Your task to perform on an android device: Go to network settings Image 0: 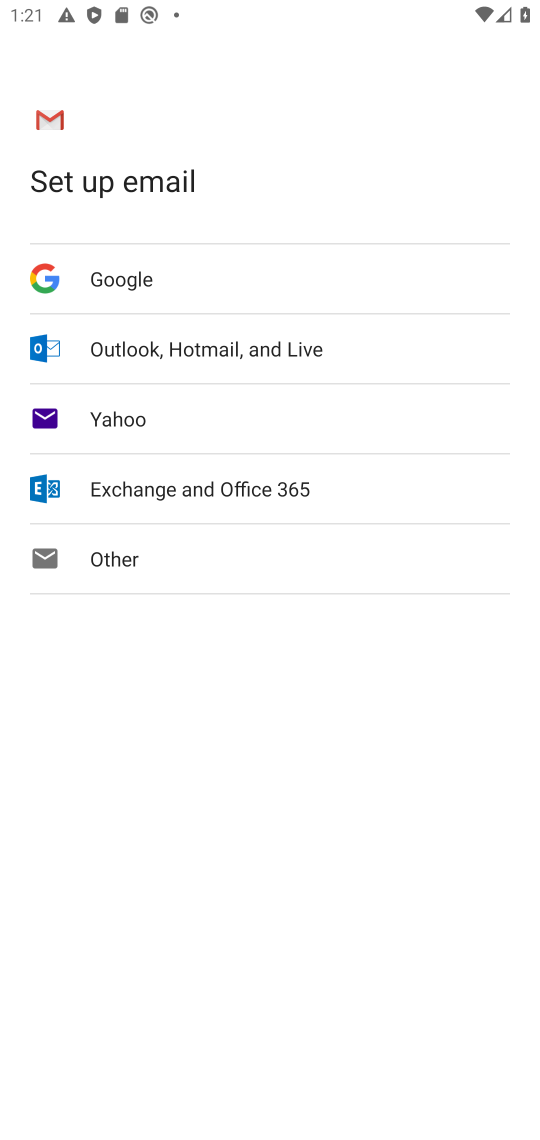
Step 0: press home button
Your task to perform on an android device: Go to network settings Image 1: 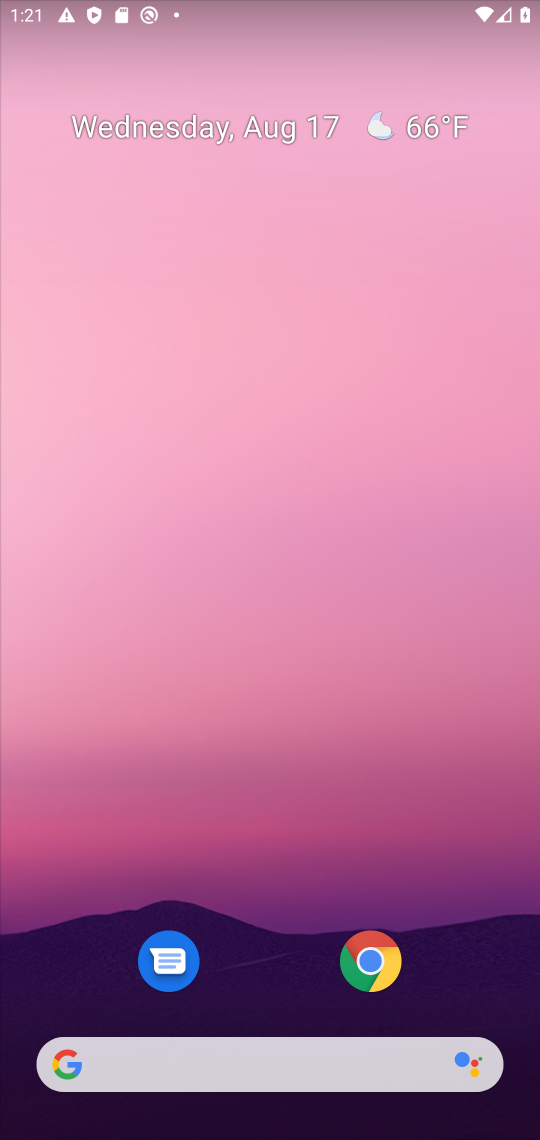
Step 1: drag from (244, 1011) to (169, 318)
Your task to perform on an android device: Go to network settings Image 2: 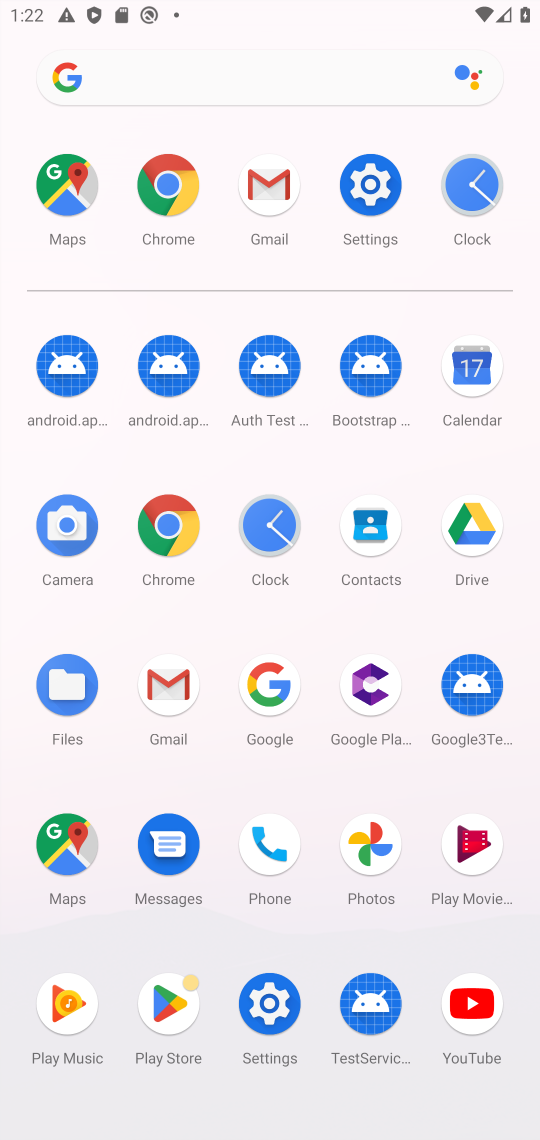
Step 2: click (384, 220)
Your task to perform on an android device: Go to network settings Image 3: 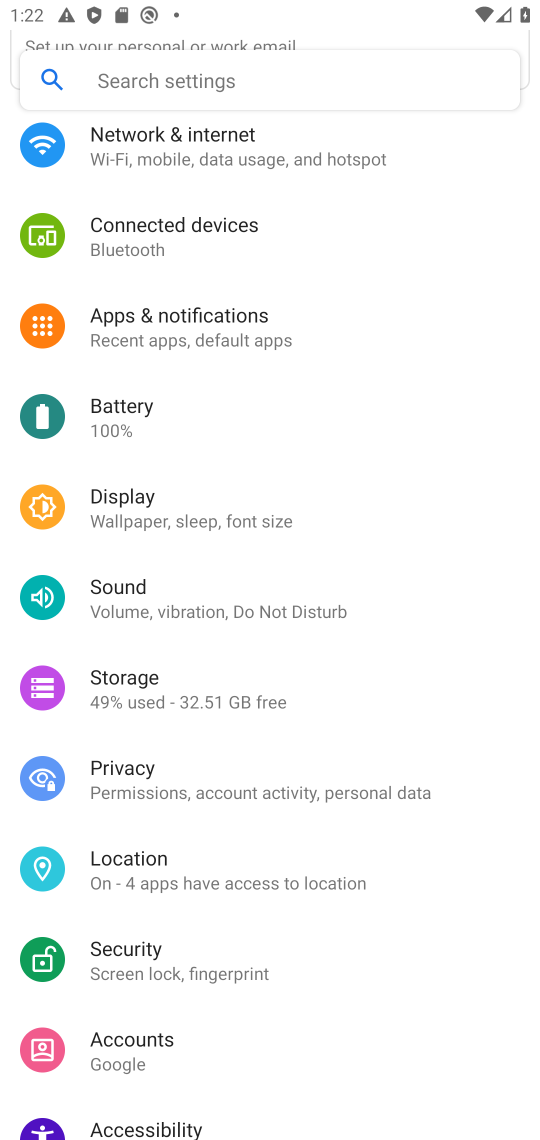
Step 3: drag from (264, 373) to (395, 914)
Your task to perform on an android device: Go to network settings Image 4: 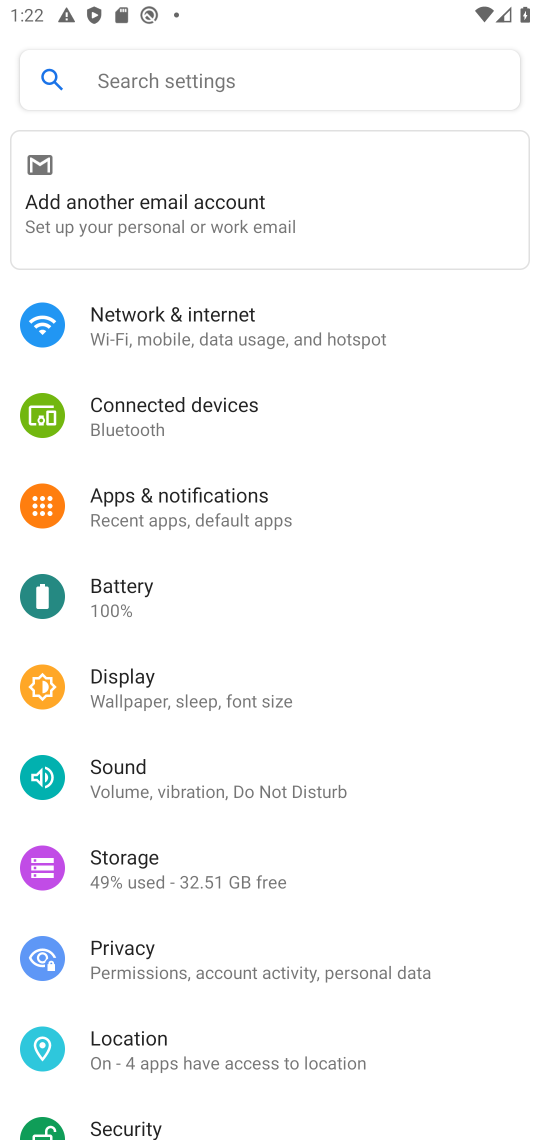
Step 4: click (338, 333)
Your task to perform on an android device: Go to network settings Image 5: 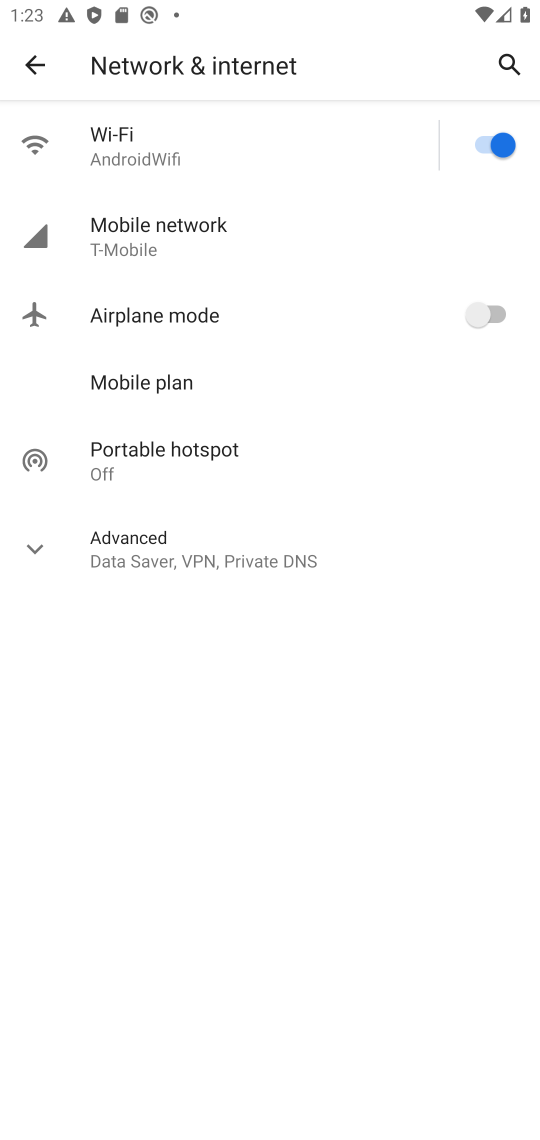
Step 5: click (161, 261)
Your task to perform on an android device: Go to network settings Image 6: 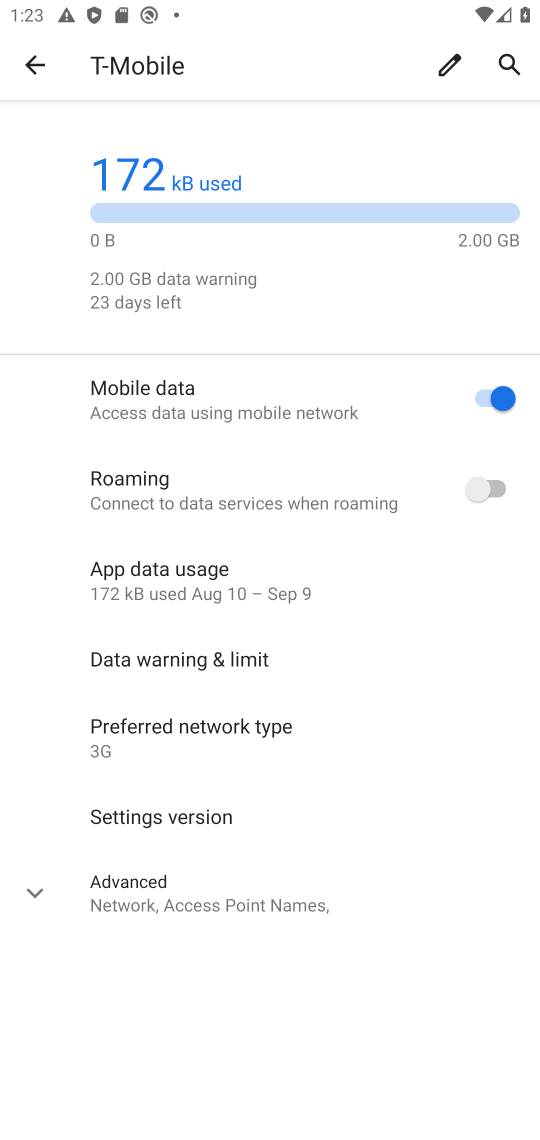
Step 6: task complete